Your task to perform on an android device: Go to Google maps Image 0: 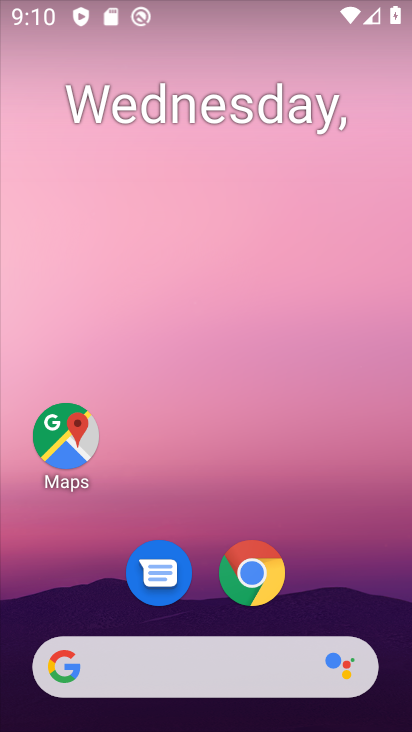
Step 0: click (68, 431)
Your task to perform on an android device: Go to Google maps Image 1: 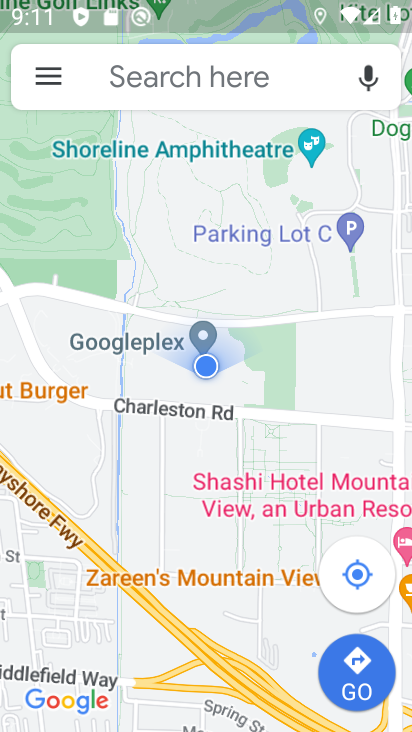
Step 1: task complete